Your task to perform on an android device: change notification settings in the gmail app Image 0: 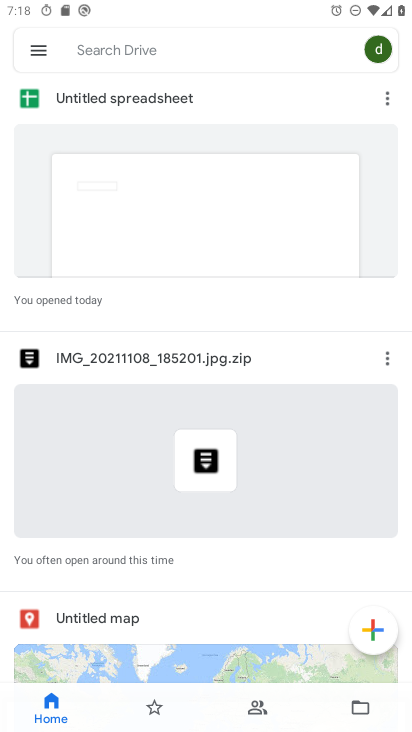
Step 0: press home button
Your task to perform on an android device: change notification settings in the gmail app Image 1: 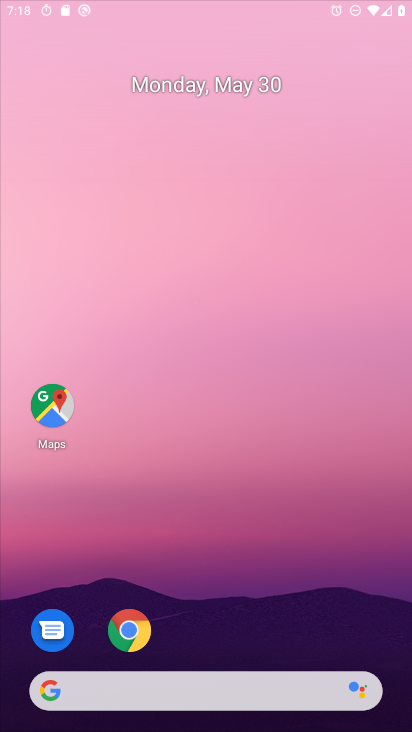
Step 1: drag from (372, 605) to (275, 48)
Your task to perform on an android device: change notification settings in the gmail app Image 2: 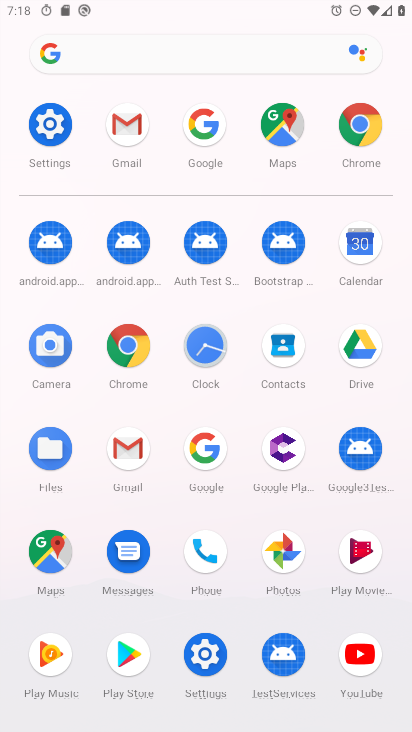
Step 2: click (139, 453)
Your task to perform on an android device: change notification settings in the gmail app Image 3: 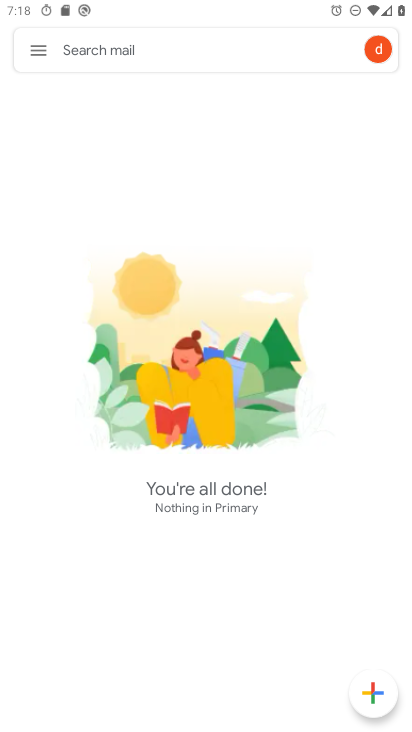
Step 3: click (42, 59)
Your task to perform on an android device: change notification settings in the gmail app Image 4: 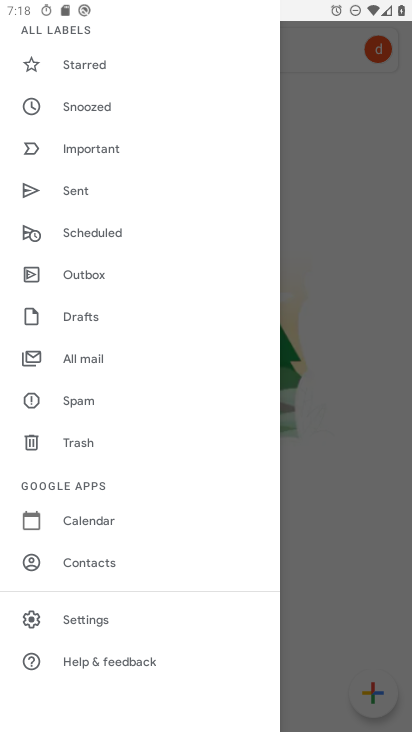
Step 4: click (104, 612)
Your task to perform on an android device: change notification settings in the gmail app Image 5: 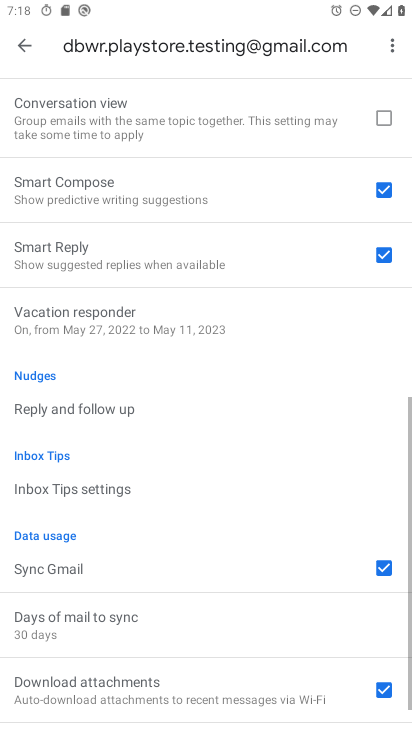
Step 5: drag from (162, 189) to (130, 731)
Your task to perform on an android device: change notification settings in the gmail app Image 6: 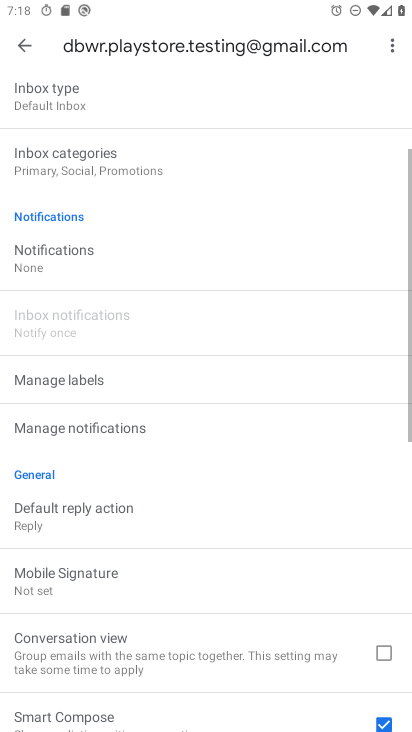
Step 6: click (103, 248)
Your task to perform on an android device: change notification settings in the gmail app Image 7: 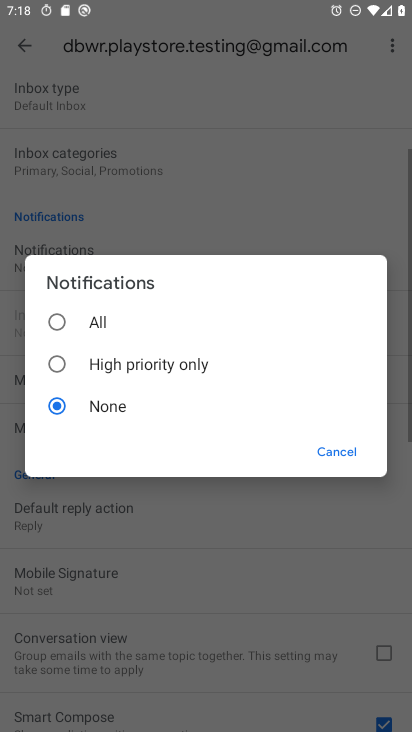
Step 7: click (90, 338)
Your task to perform on an android device: change notification settings in the gmail app Image 8: 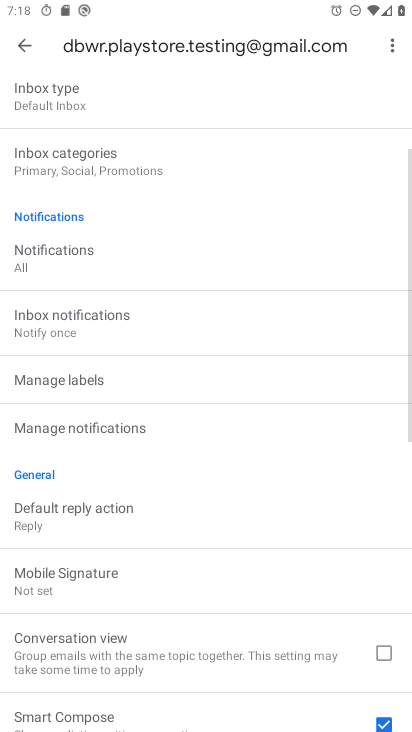
Step 8: task complete